Your task to perform on an android device: Clear the shopping cart on amazon.com. Search for usb-a on amazon.com, select the first entry, and add it to the cart. Image 0: 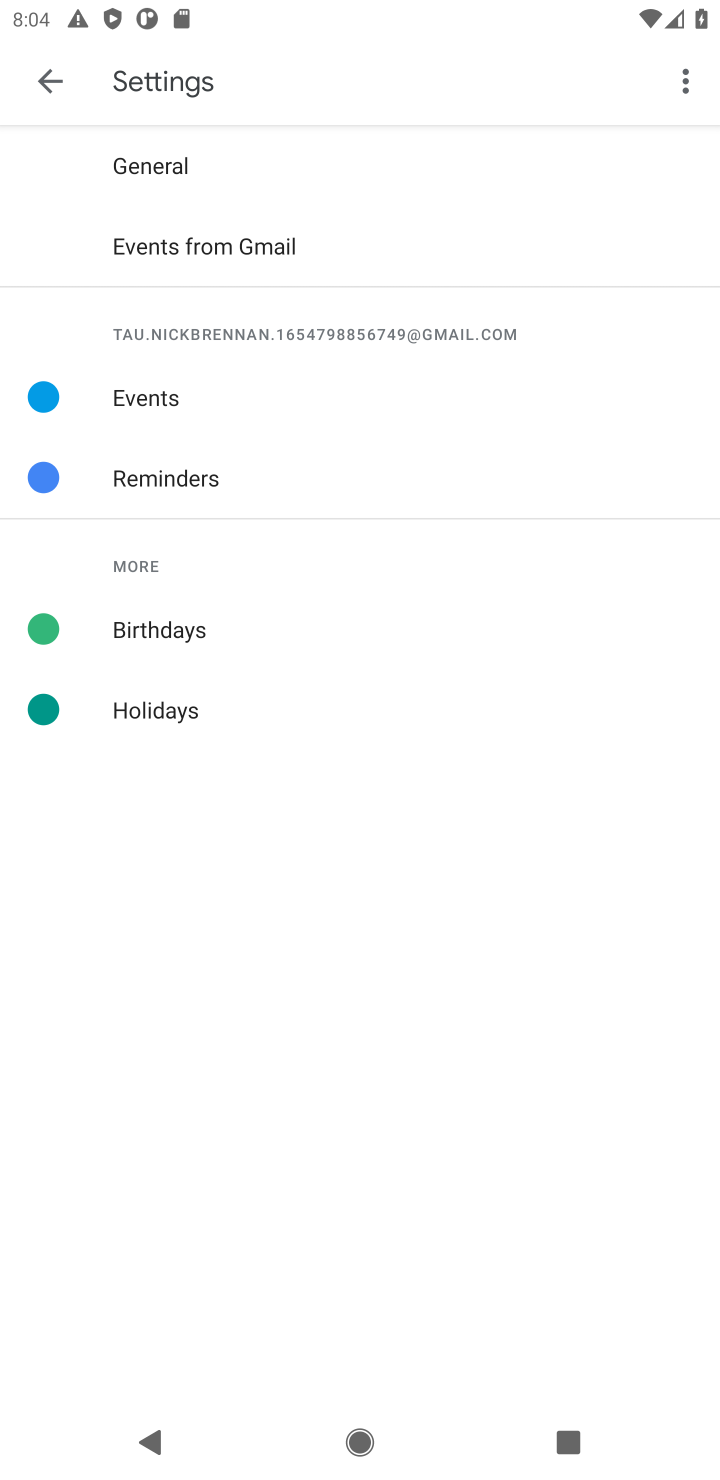
Step 0: task complete